Your task to perform on an android device: stop showing notifications on the lock screen Image 0: 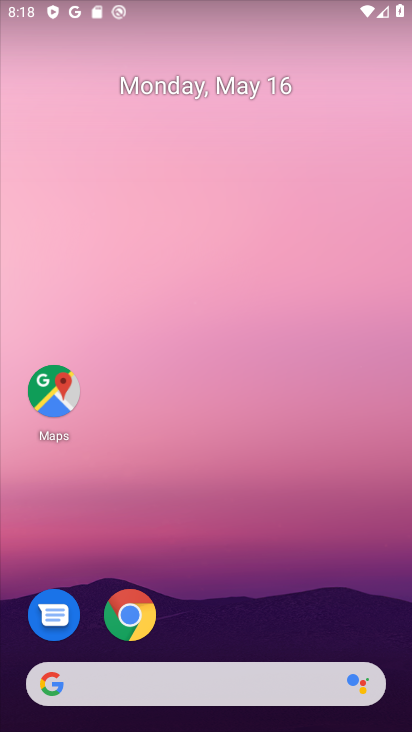
Step 0: drag from (4, 694) to (403, 149)
Your task to perform on an android device: stop showing notifications on the lock screen Image 1: 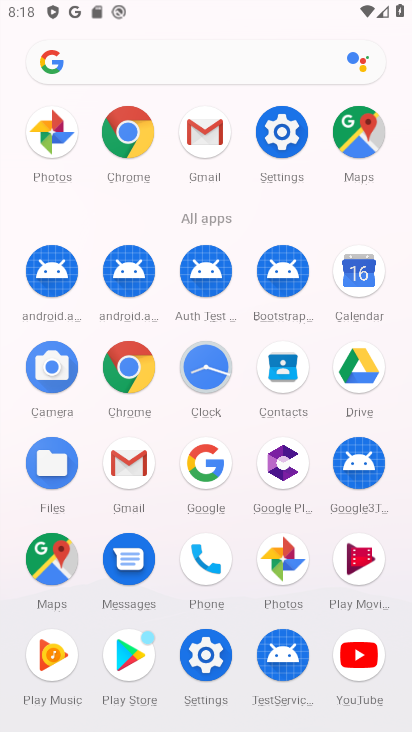
Step 1: click (286, 130)
Your task to perform on an android device: stop showing notifications on the lock screen Image 2: 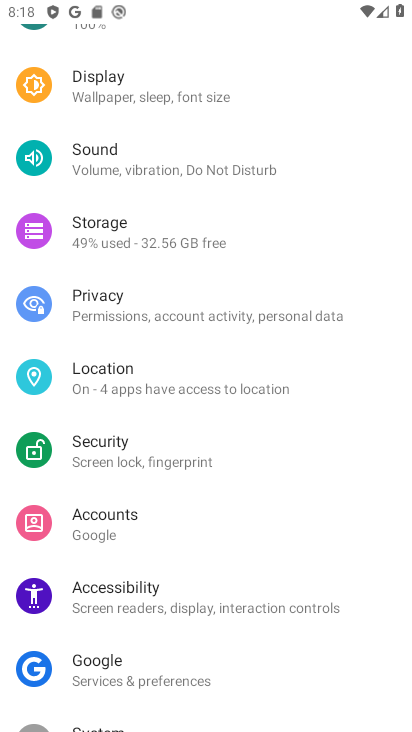
Step 2: drag from (110, 231) to (108, 564)
Your task to perform on an android device: stop showing notifications on the lock screen Image 3: 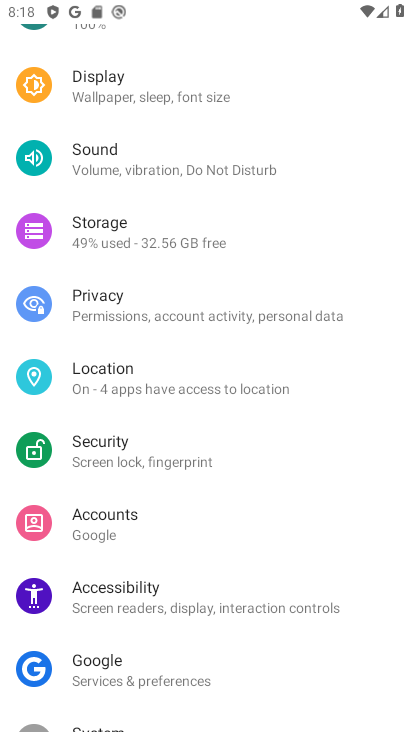
Step 3: drag from (173, 165) to (203, 715)
Your task to perform on an android device: stop showing notifications on the lock screen Image 4: 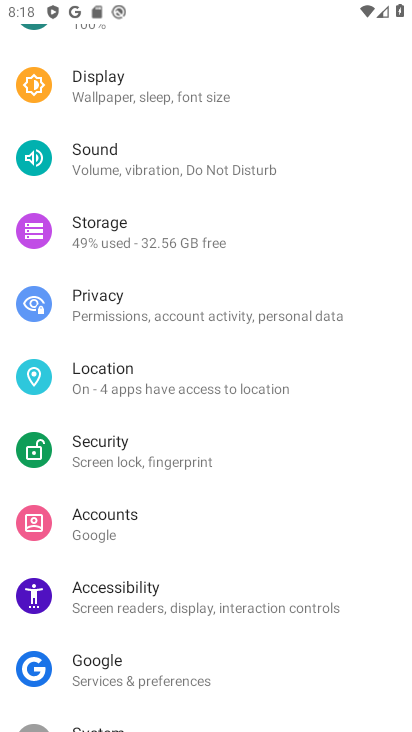
Step 4: drag from (130, 110) to (162, 603)
Your task to perform on an android device: stop showing notifications on the lock screen Image 5: 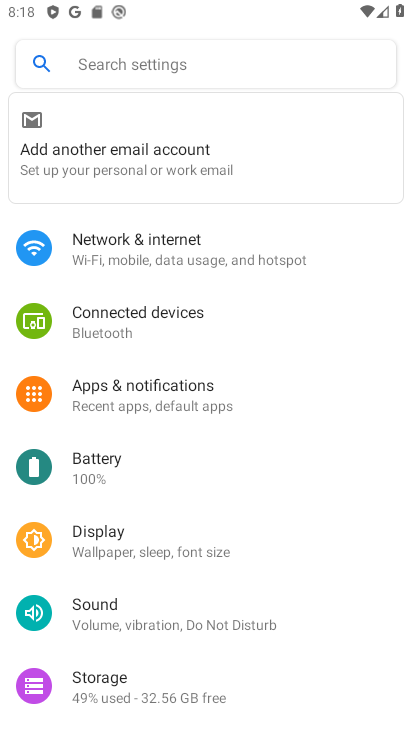
Step 5: click (155, 407)
Your task to perform on an android device: stop showing notifications on the lock screen Image 6: 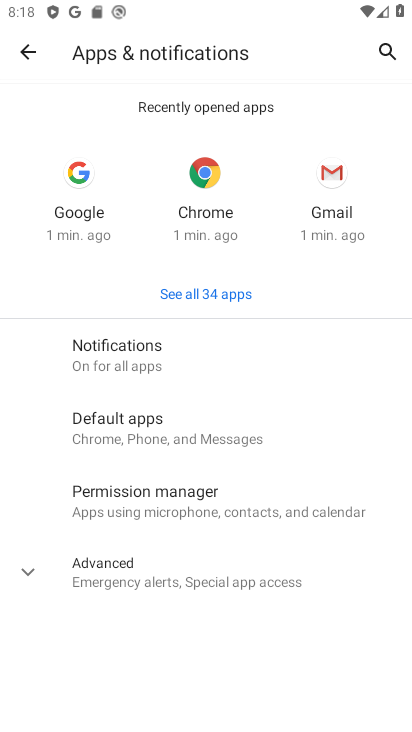
Step 6: click (180, 364)
Your task to perform on an android device: stop showing notifications on the lock screen Image 7: 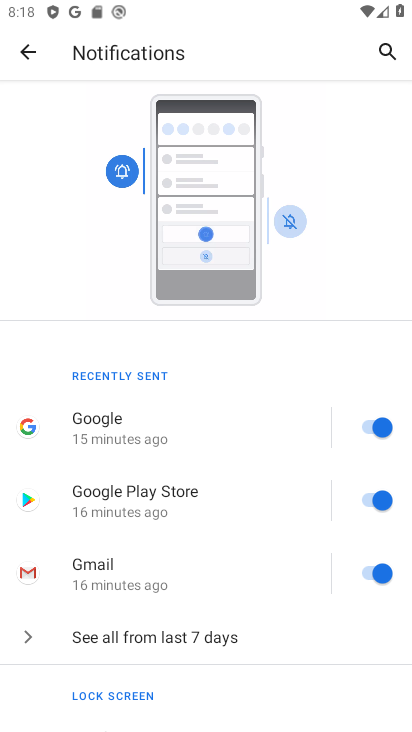
Step 7: drag from (21, 677) to (177, 244)
Your task to perform on an android device: stop showing notifications on the lock screen Image 8: 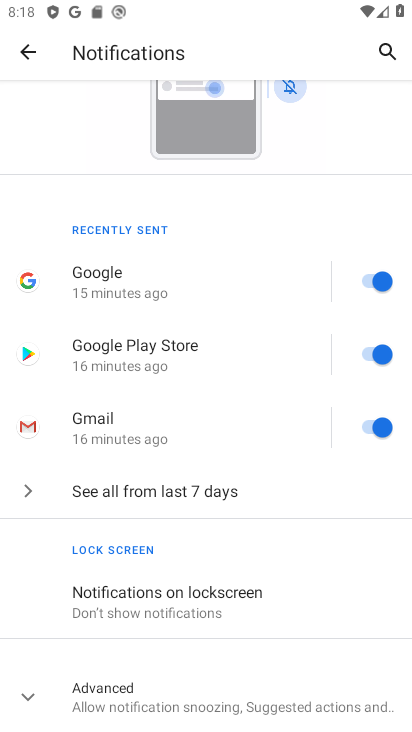
Step 8: click (144, 588)
Your task to perform on an android device: stop showing notifications on the lock screen Image 9: 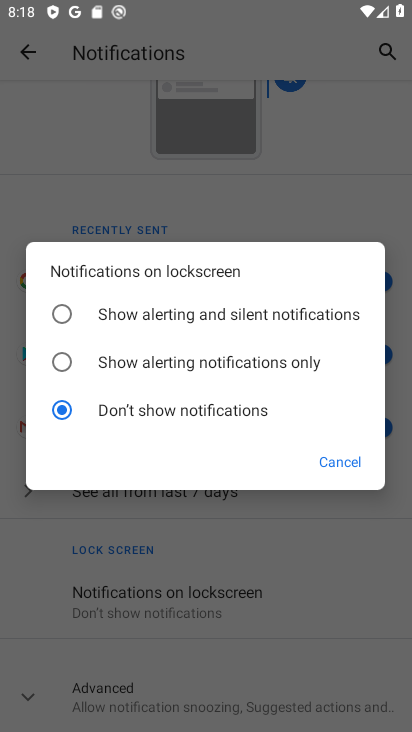
Step 9: task complete